Your task to perform on an android device: Search for Mexican restaurants on Maps Image 0: 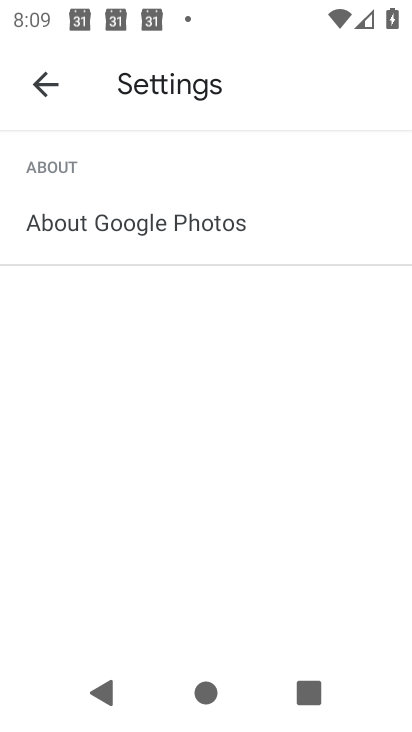
Step 0: press home button
Your task to perform on an android device: Search for Mexican restaurants on Maps Image 1: 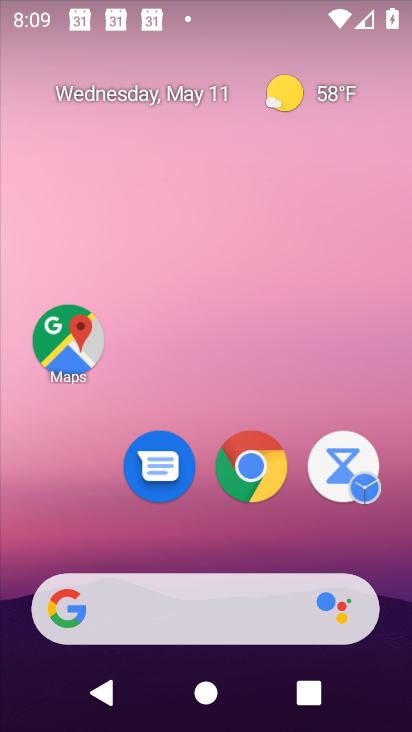
Step 1: drag from (213, 554) to (264, 28)
Your task to perform on an android device: Search for Mexican restaurants on Maps Image 2: 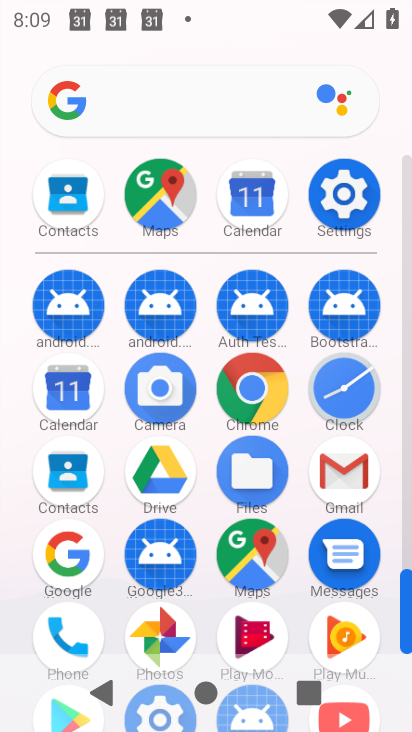
Step 2: click (158, 192)
Your task to perform on an android device: Search for Mexican restaurants on Maps Image 3: 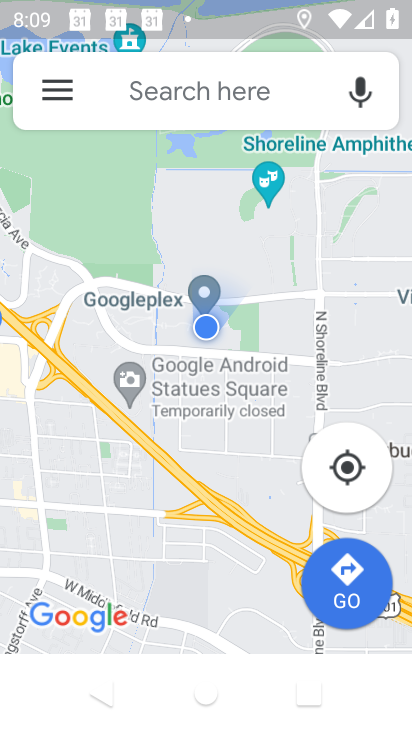
Step 3: click (183, 88)
Your task to perform on an android device: Search for Mexican restaurants on Maps Image 4: 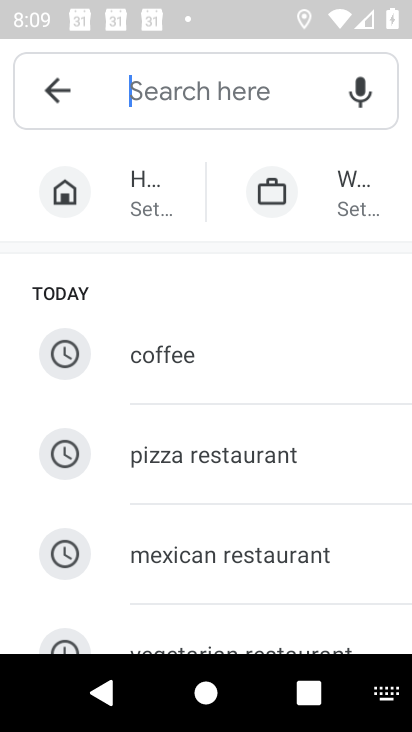
Step 4: type "mexican restaurants"
Your task to perform on an android device: Search for Mexican restaurants on Maps Image 5: 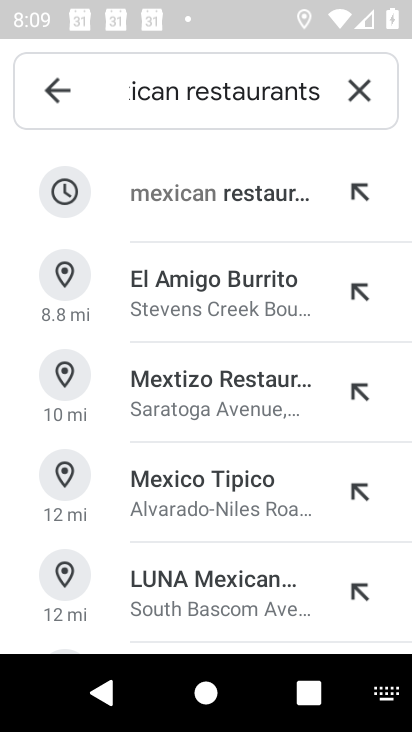
Step 5: click (267, 194)
Your task to perform on an android device: Search for Mexican restaurants on Maps Image 6: 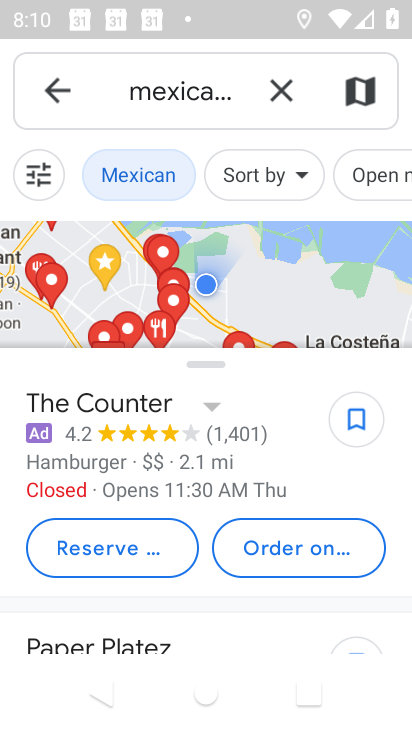
Step 6: task complete